Your task to perform on an android device: Turn on the flashlight Image 0: 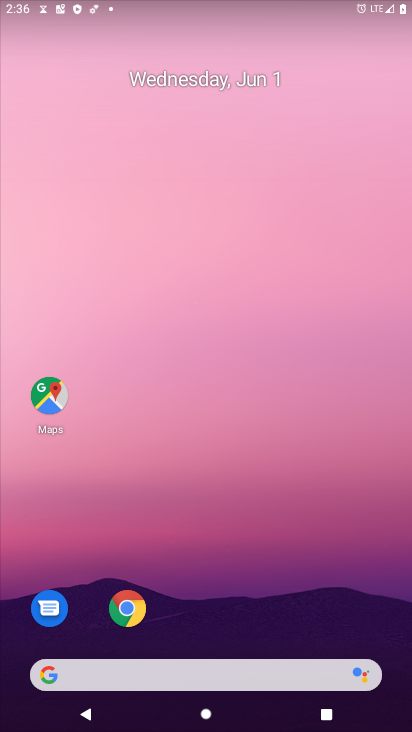
Step 0: drag from (260, 461) to (301, 187)
Your task to perform on an android device: Turn on the flashlight Image 1: 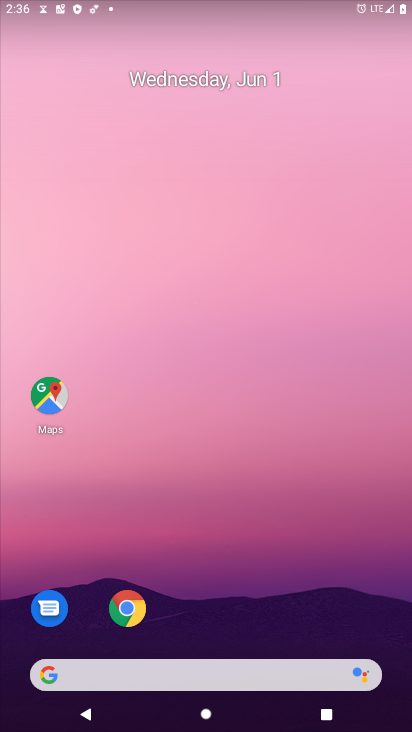
Step 1: drag from (166, 575) to (255, 58)
Your task to perform on an android device: Turn on the flashlight Image 2: 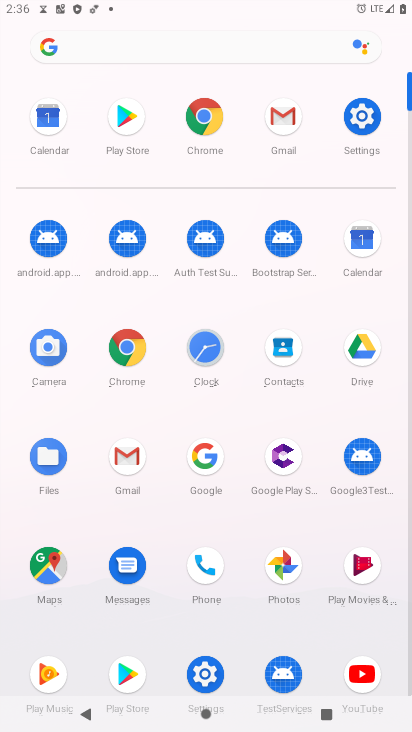
Step 2: click (364, 106)
Your task to perform on an android device: Turn on the flashlight Image 3: 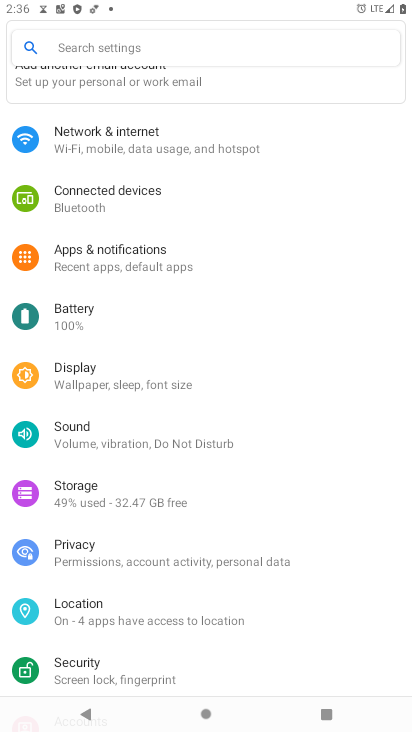
Step 3: click (108, 379)
Your task to perform on an android device: Turn on the flashlight Image 4: 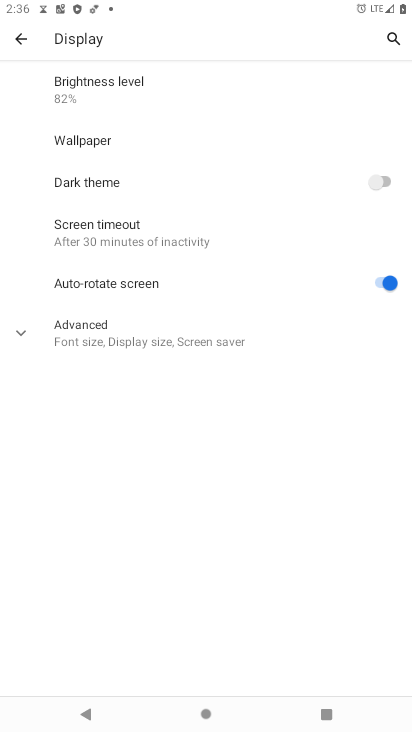
Step 4: click (195, 320)
Your task to perform on an android device: Turn on the flashlight Image 5: 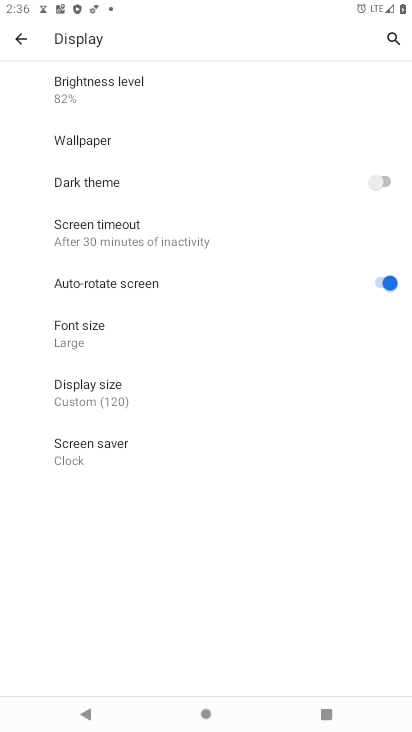
Step 5: task complete